Your task to perform on an android device: Turn on the flashlight Image 0: 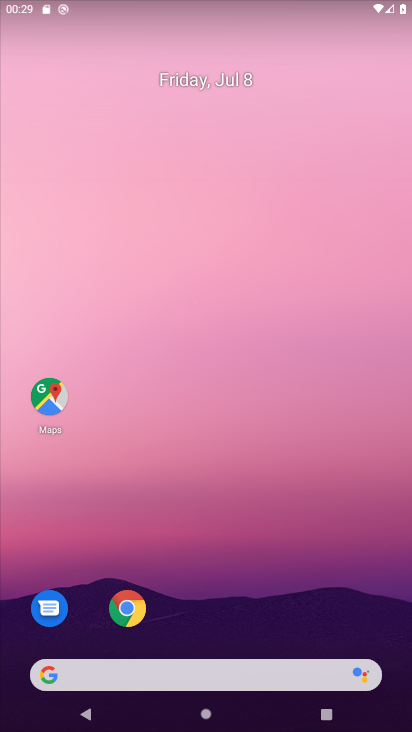
Step 0: drag from (311, 669) to (295, 204)
Your task to perform on an android device: Turn on the flashlight Image 1: 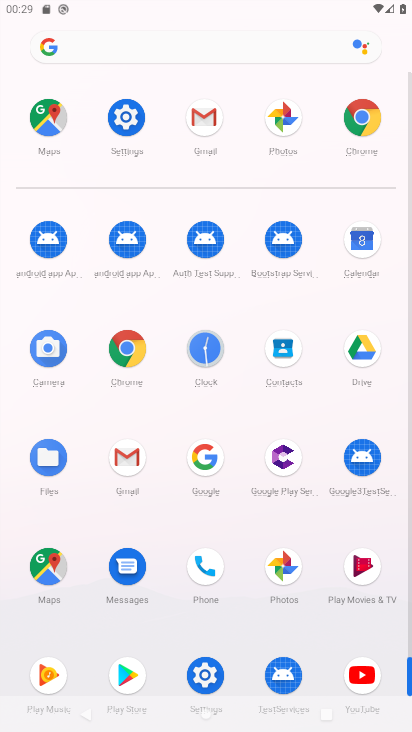
Step 1: click (131, 123)
Your task to perform on an android device: Turn on the flashlight Image 2: 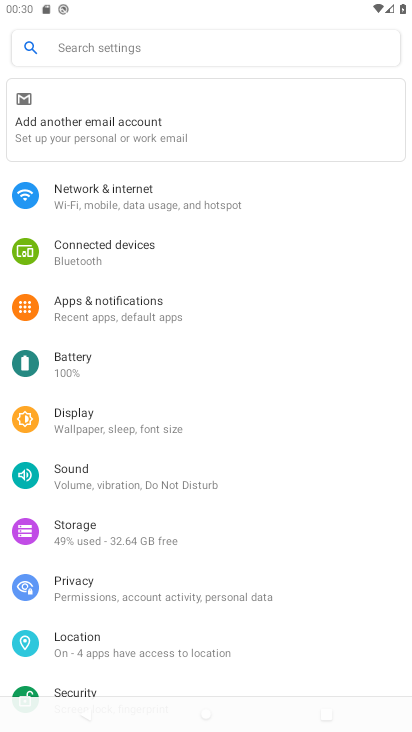
Step 2: task complete